Your task to perform on an android device: Open calendar and show me the first week of next month Image 0: 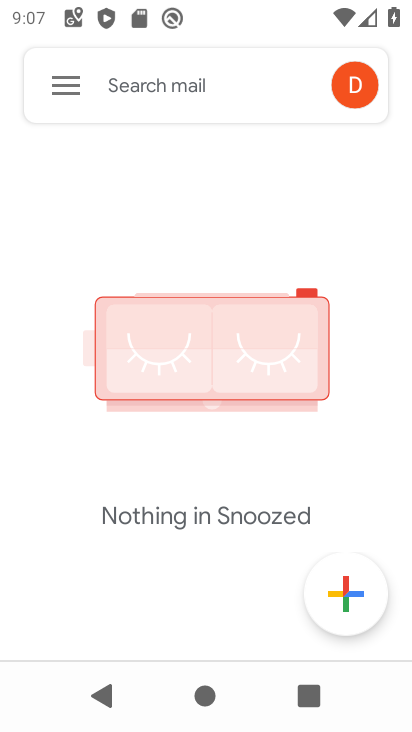
Step 0: press home button
Your task to perform on an android device: Open calendar and show me the first week of next month Image 1: 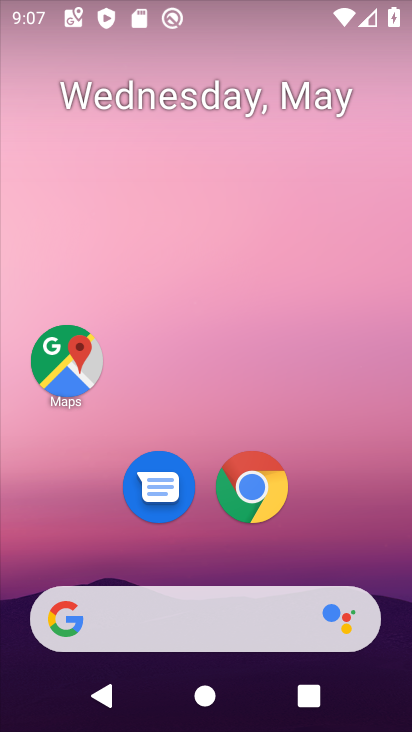
Step 1: drag from (355, 490) to (220, 85)
Your task to perform on an android device: Open calendar and show me the first week of next month Image 2: 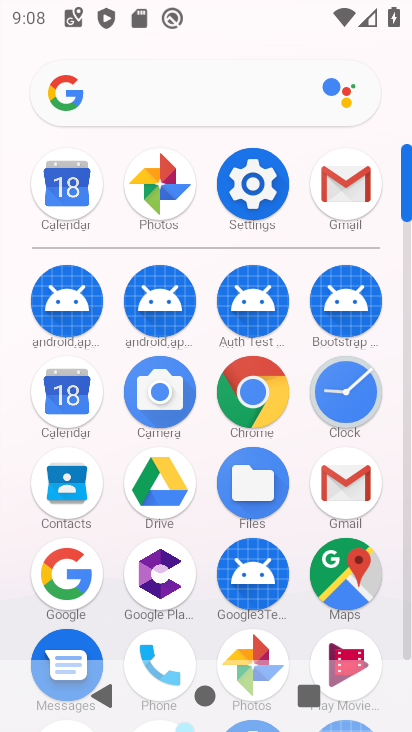
Step 2: click (71, 389)
Your task to perform on an android device: Open calendar and show me the first week of next month Image 3: 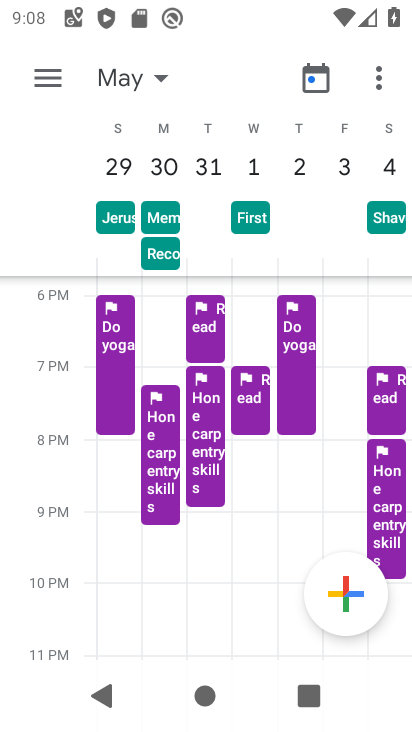
Step 3: click (159, 82)
Your task to perform on an android device: Open calendar and show me the first week of next month Image 4: 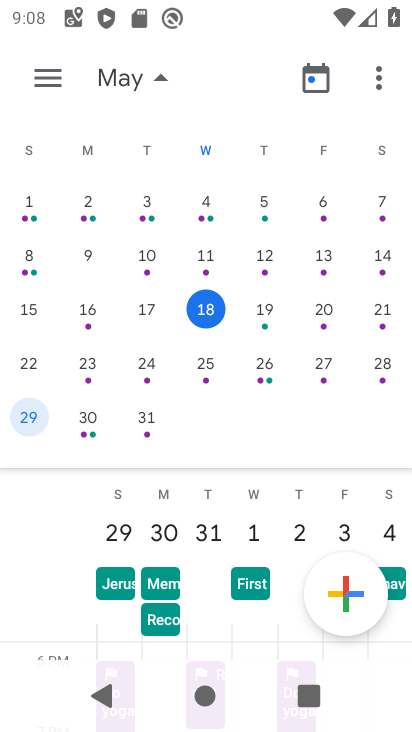
Step 4: task complete